Your task to perform on an android device: What's on my calendar tomorrow? Image 0: 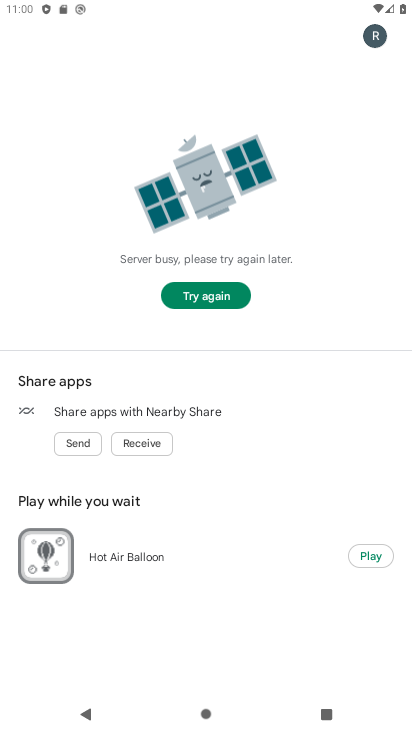
Step 0: press home button
Your task to perform on an android device: What's on my calendar tomorrow? Image 1: 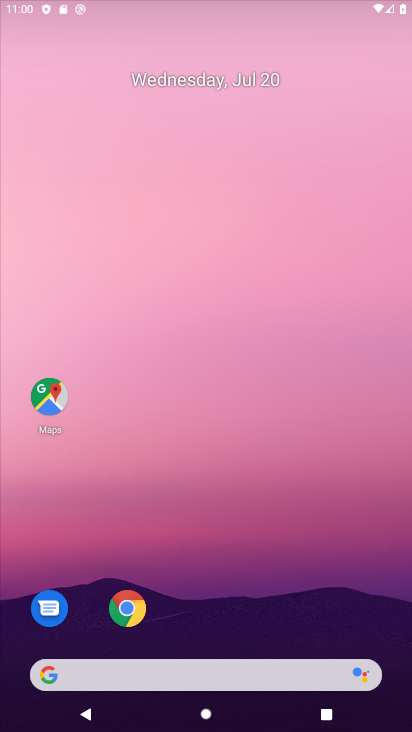
Step 1: drag from (391, 645) to (159, 22)
Your task to perform on an android device: What's on my calendar tomorrow? Image 2: 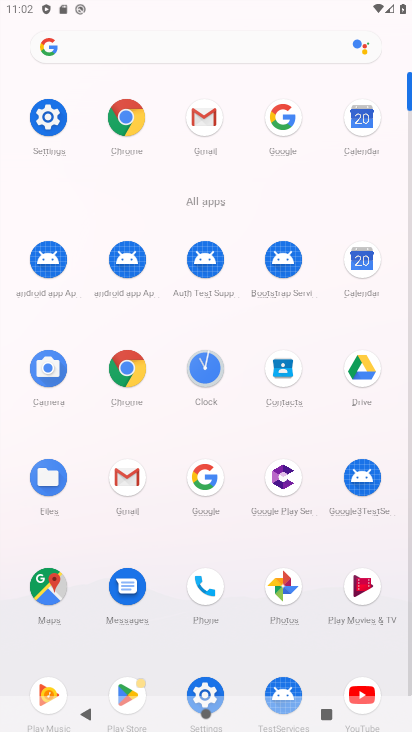
Step 2: click (346, 267)
Your task to perform on an android device: What's on my calendar tomorrow? Image 3: 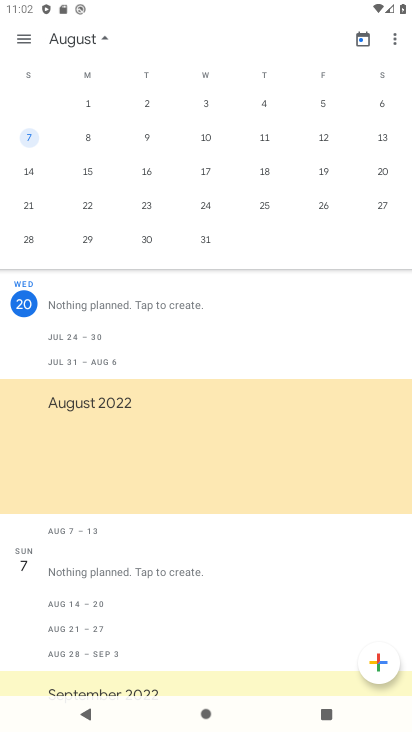
Step 3: task complete